Your task to perform on an android device: Open Google Maps and go to "Timeline" Image 0: 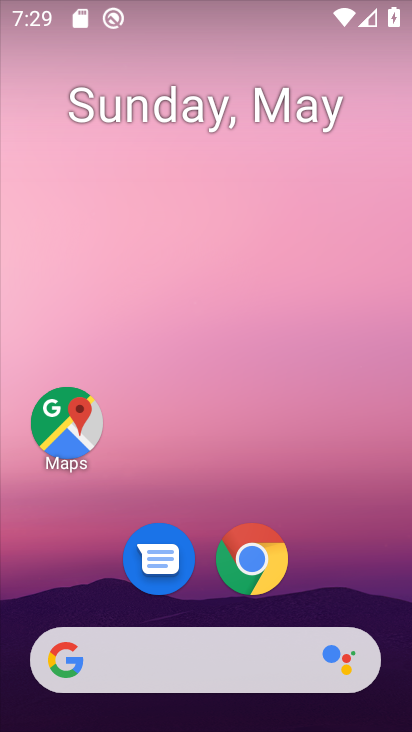
Step 0: click (70, 430)
Your task to perform on an android device: Open Google Maps and go to "Timeline" Image 1: 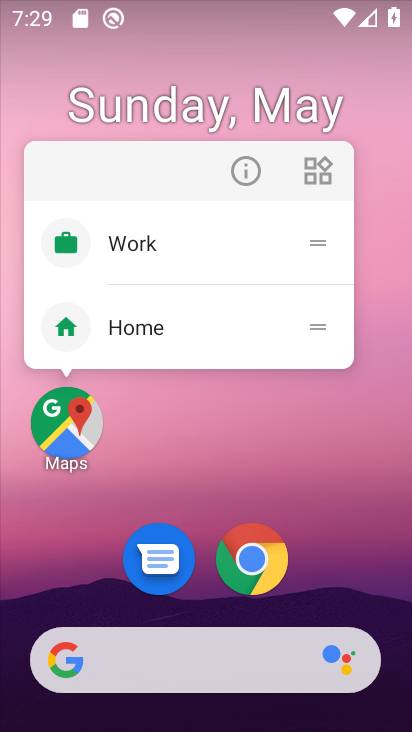
Step 1: click (67, 436)
Your task to perform on an android device: Open Google Maps and go to "Timeline" Image 2: 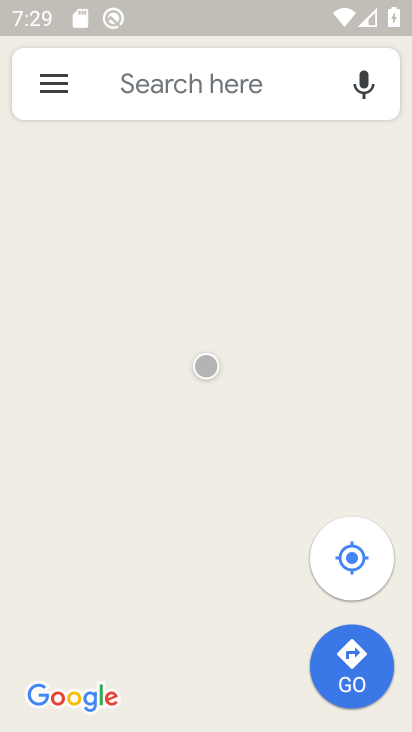
Step 2: click (61, 87)
Your task to perform on an android device: Open Google Maps and go to "Timeline" Image 3: 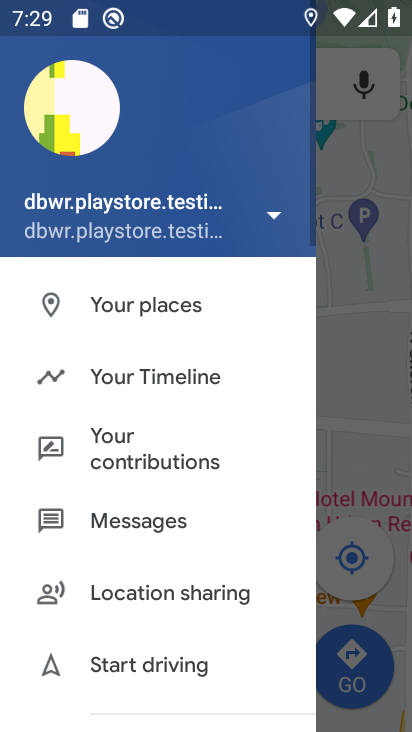
Step 3: click (147, 372)
Your task to perform on an android device: Open Google Maps and go to "Timeline" Image 4: 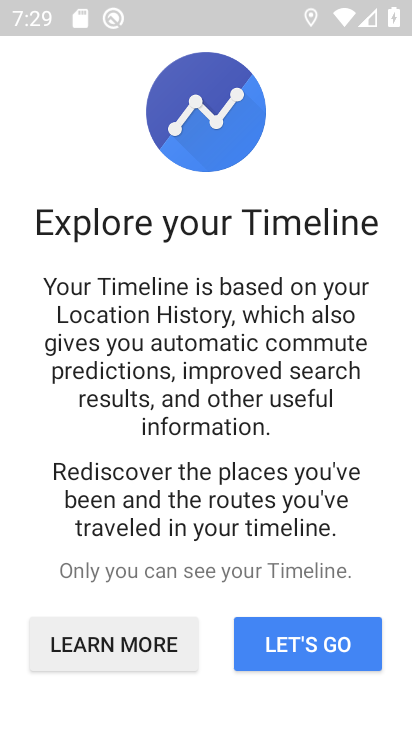
Step 4: click (329, 660)
Your task to perform on an android device: Open Google Maps and go to "Timeline" Image 5: 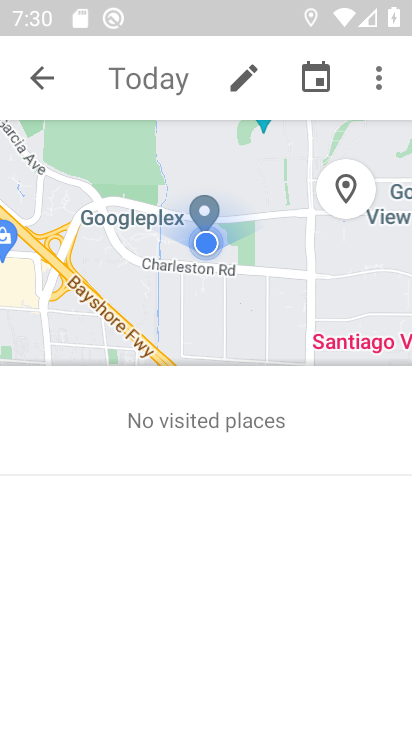
Step 5: task complete